Your task to perform on an android device: star an email in the gmail app Image 0: 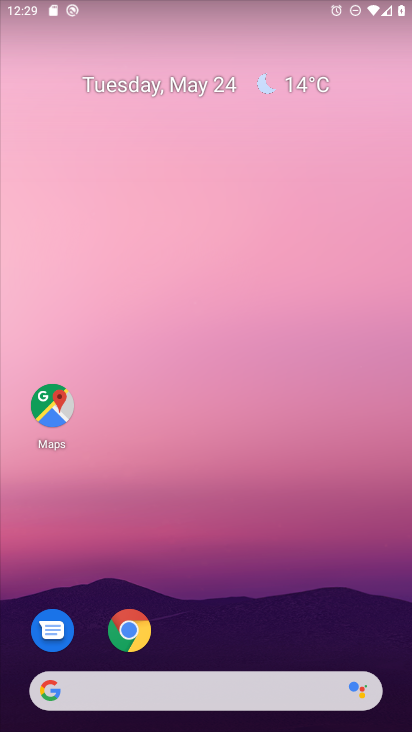
Step 0: drag from (344, 623) to (378, 77)
Your task to perform on an android device: star an email in the gmail app Image 1: 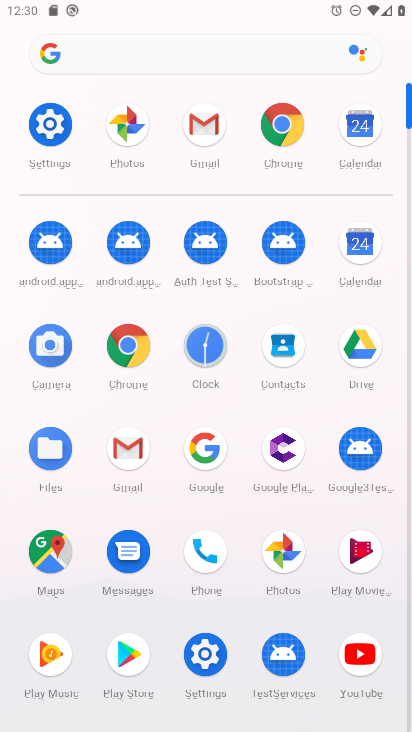
Step 1: click (215, 131)
Your task to perform on an android device: star an email in the gmail app Image 2: 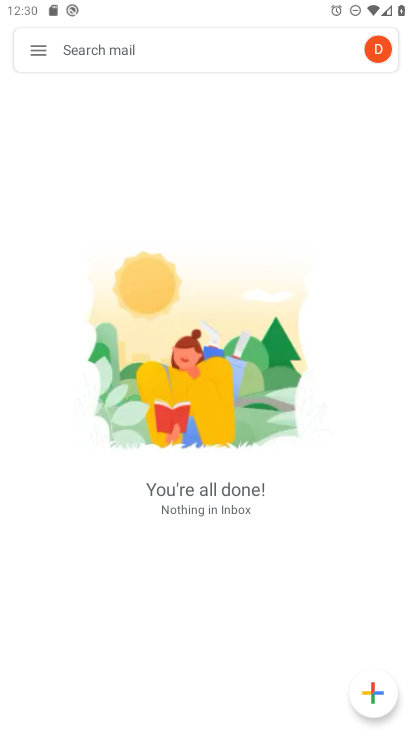
Step 2: click (48, 57)
Your task to perform on an android device: star an email in the gmail app Image 3: 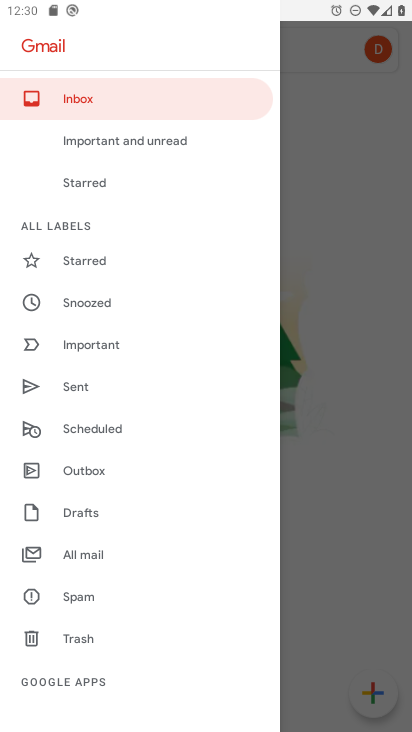
Step 3: click (111, 258)
Your task to perform on an android device: star an email in the gmail app Image 4: 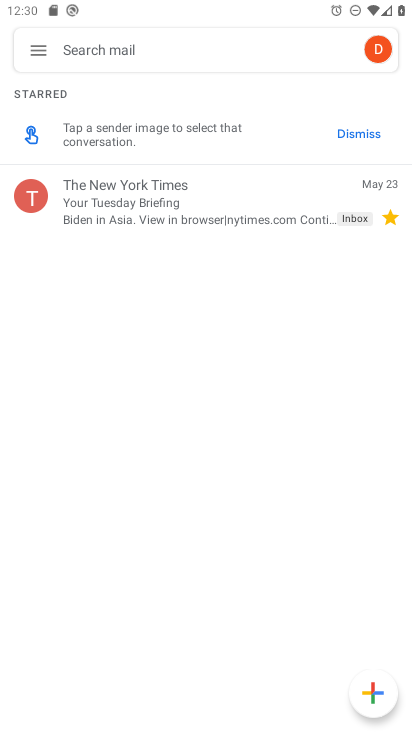
Step 4: task complete